Your task to perform on an android device: turn off location history Image 0: 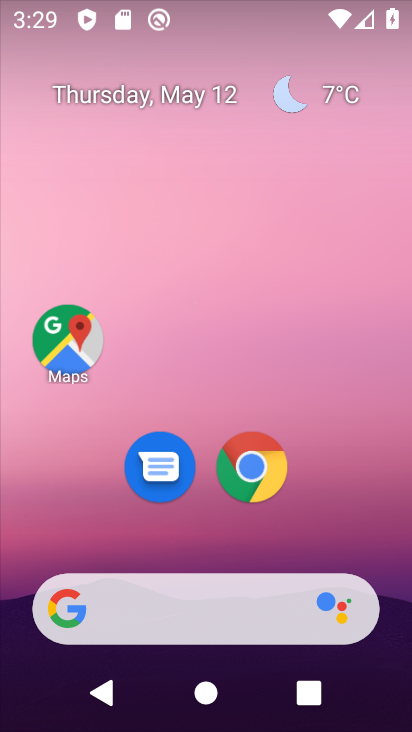
Step 0: drag from (144, 548) to (236, 143)
Your task to perform on an android device: turn off location history Image 1: 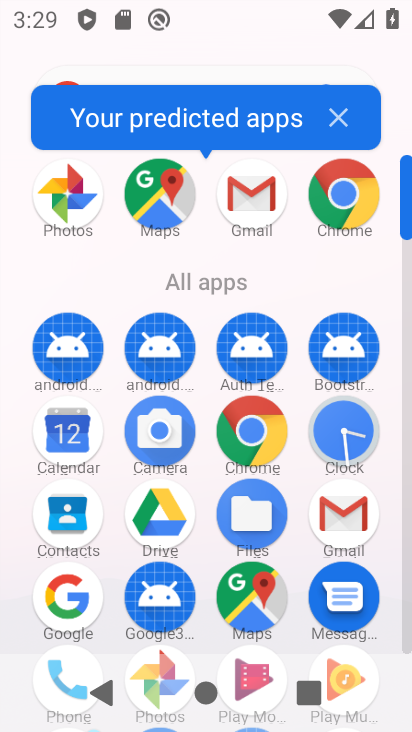
Step 1: drag from (186, 569) to (237, 357)
Your task to perform on an android device: turn off location history Image 2: 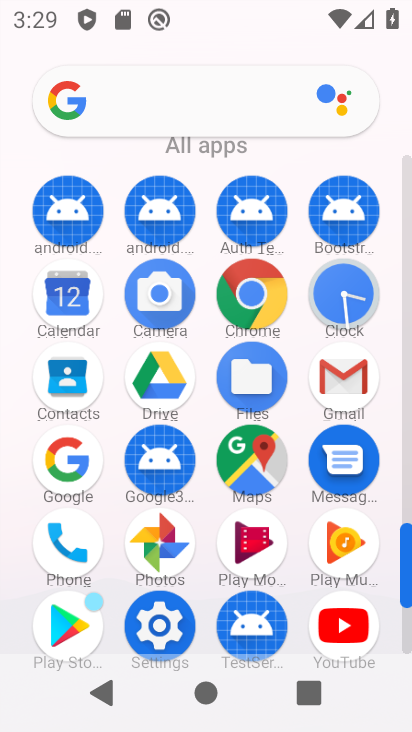
Step 2: click (177, 644)
Your task to perform on an android device: turn off location history Image 3: 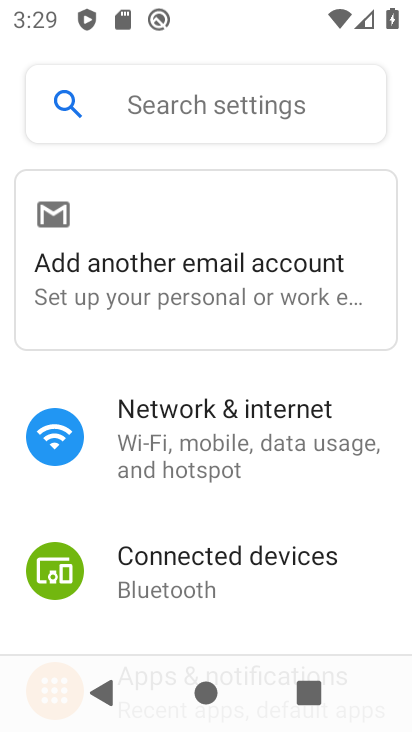
Step 3: drag from (204, 603) to (304, 103)
Your task to perform on an android device: turn off location history Image 4: 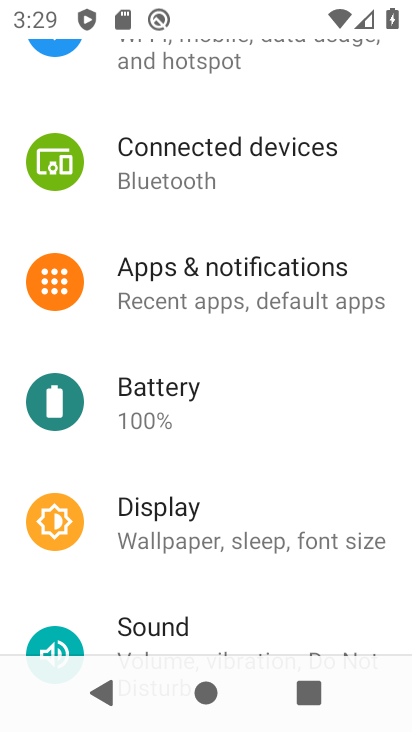
Step 4: drag from (174, 533) to (244, 210)
Your task to perform on an android device: turn off location history Image 5: 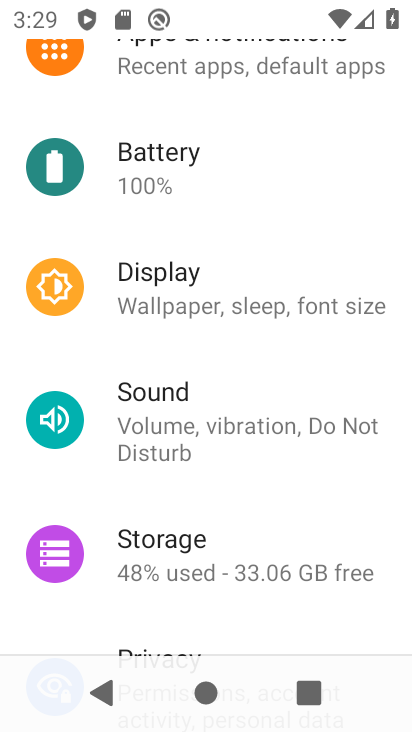
Step 5: drag from (174, 553) to (250, 206)
Your task to perform on an android device: turn off location history Image 6: 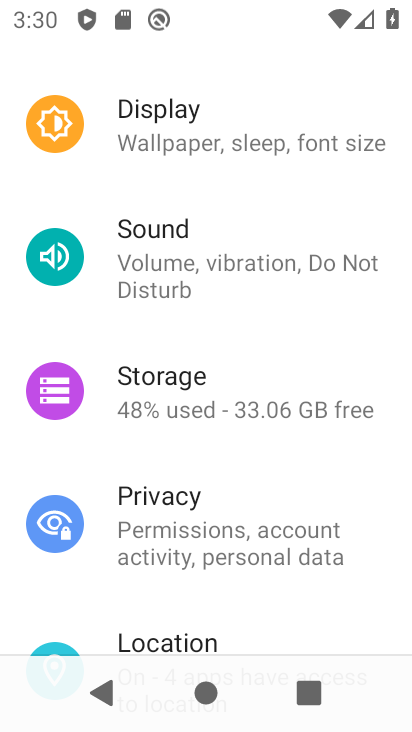
Step 6: drag from (159, 557) to (234, 247)
Your task to perform on an android device: turn off location history Image 7: 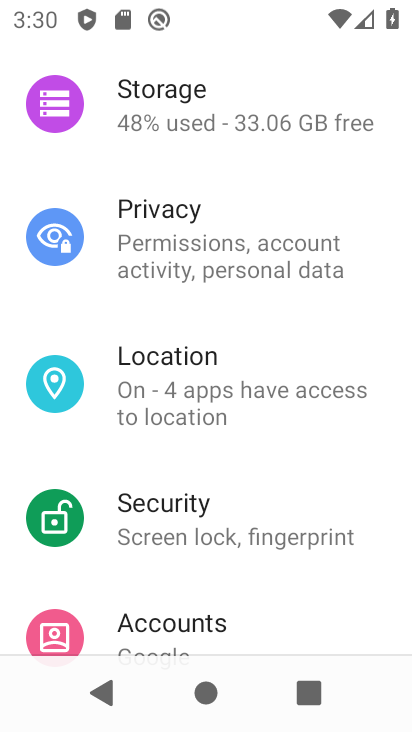
Step 7: click (212, 402)
Your task to perform on an android device: turn off location history Image 8: 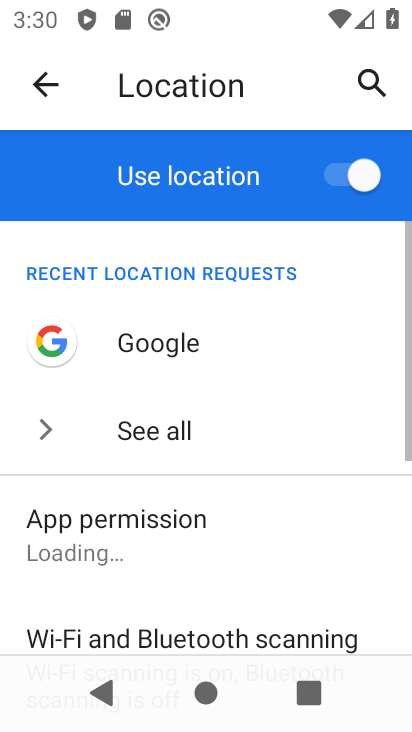
Step 8: drag from (164, 545) to (252, 184)
Your task to perform on an android device: turn off location history Image 9: 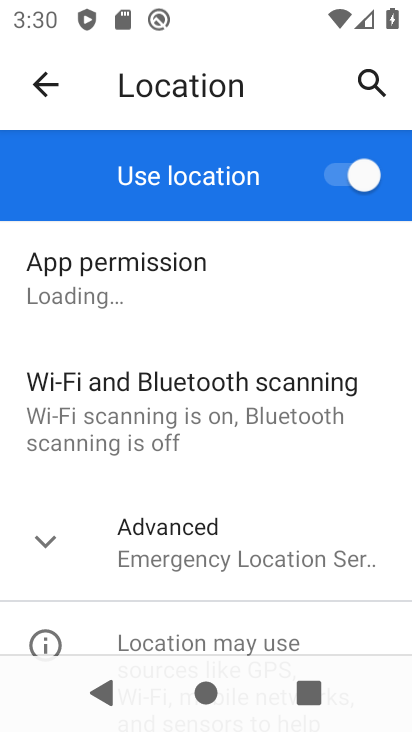
Step 9: click (202, 529)
Your task to perform on an android device: turn off location history Image 10: 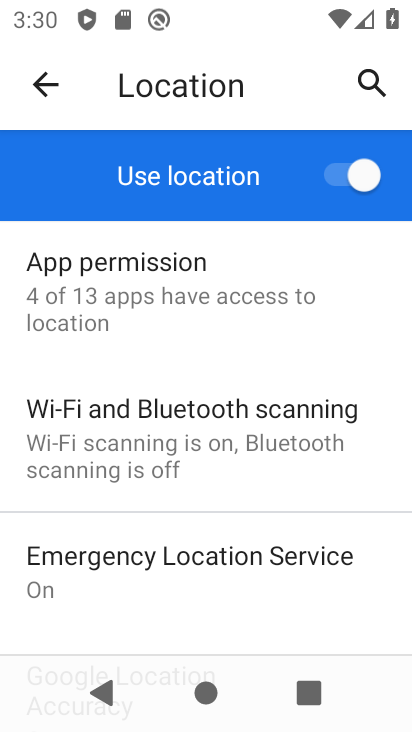
Step 10: drag from (173, 589) to (245, 243)
Your task to perform on an android device: turn off location history Image 11: 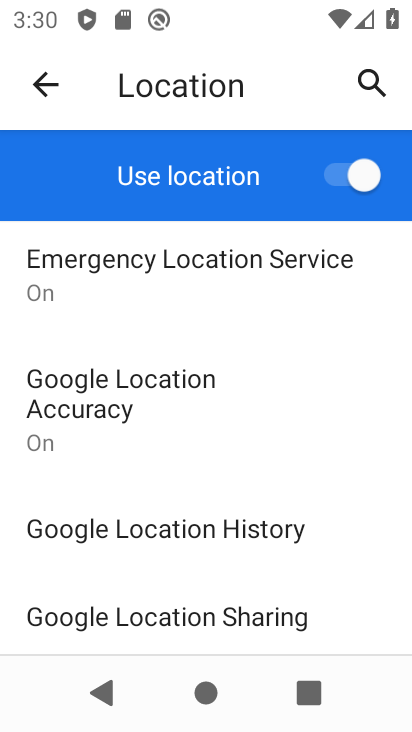
Step 11: click (194, 529)
Your task to perform on an android device: turn off location history Image 12: 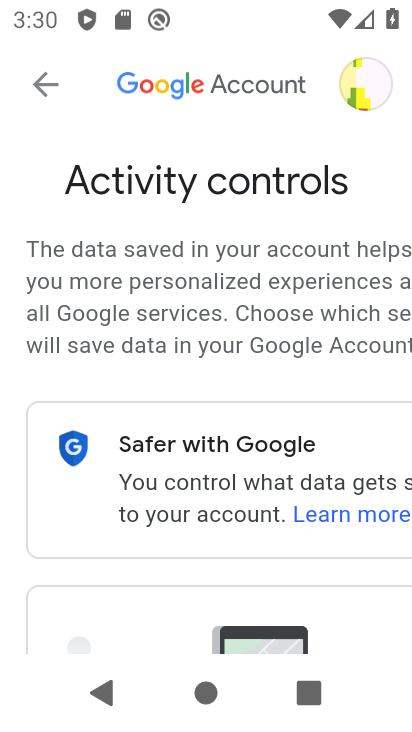
Step 12: drag from (253, 582) to (328, 123)
Your task to perform on an android device: turn off location history Image 13: 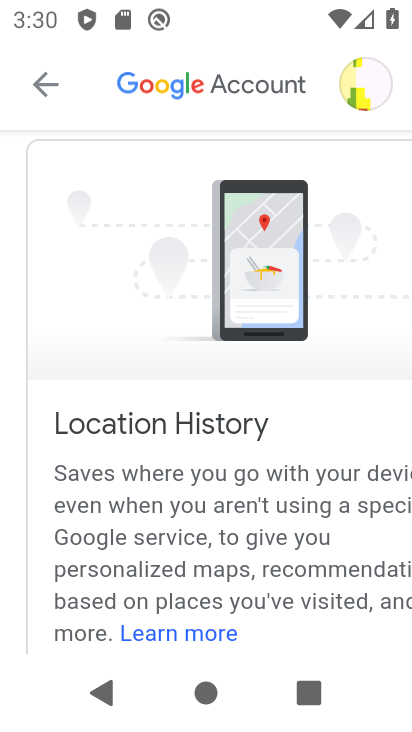
Step 13: drag from (193, 514) to (272, 77)
Your task to perform on an android device: turn off location history Image 14: 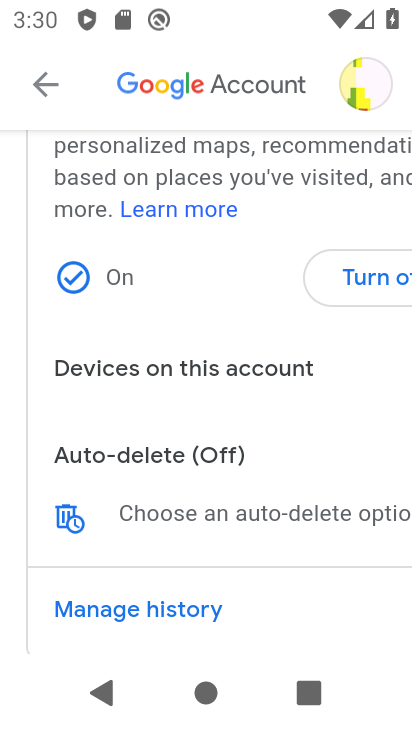
Step 14: click (356, 282)
Your task to perform on an android device: turn off location history Image 15: 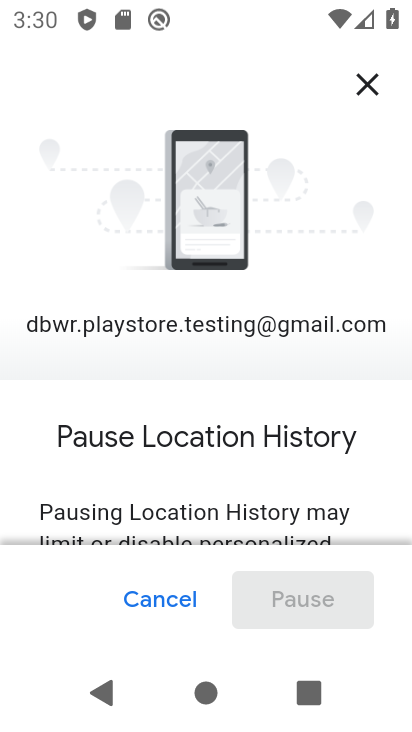
Step 15: drag from (254, 471) to (363, 111)
Your task to perform on an android device: turn off location history Image 16: 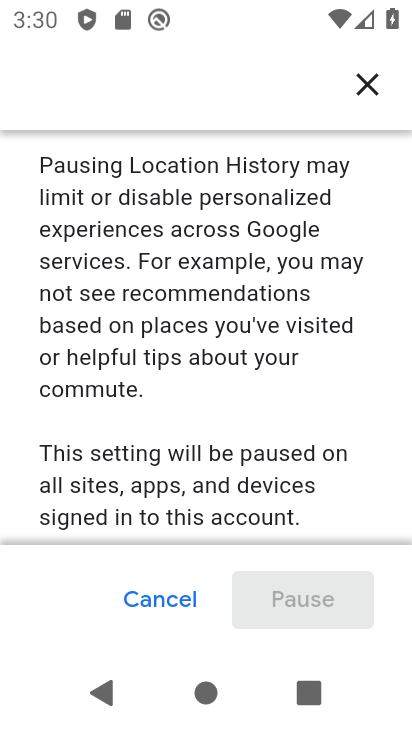
Step 16: drag from (242, 451) to (343, 66)
Your task to perform on an android device: turn off location history Image 17: 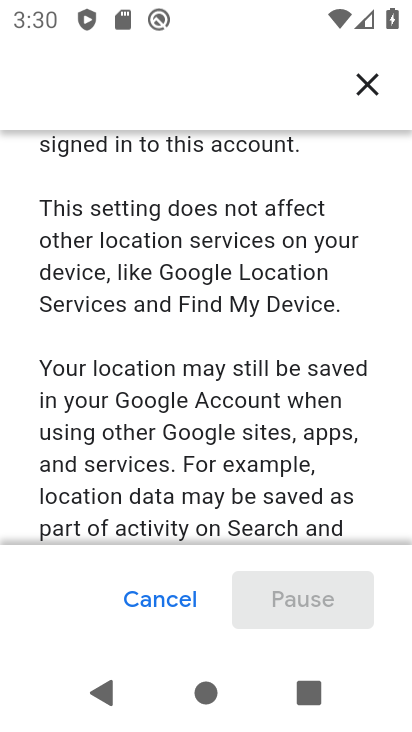
Step 17: drag from (231, 493) to (336, 85)
Your task to perform on an android device: turn off location history Image 18: 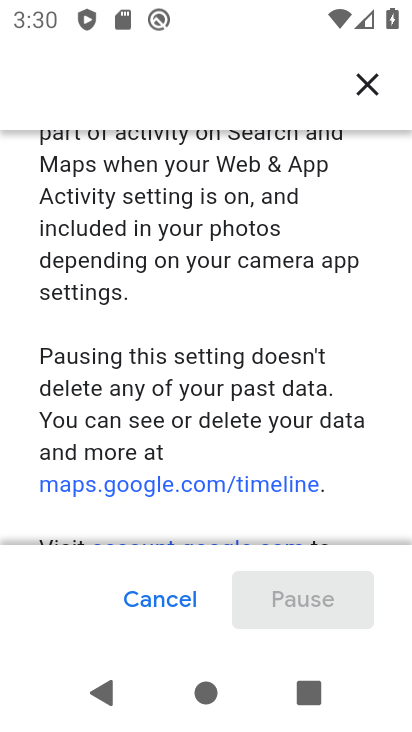
Step 18: drag from (199, 529) to (324, 141)
Your task to perform on an android device: turn off location history Image 19: 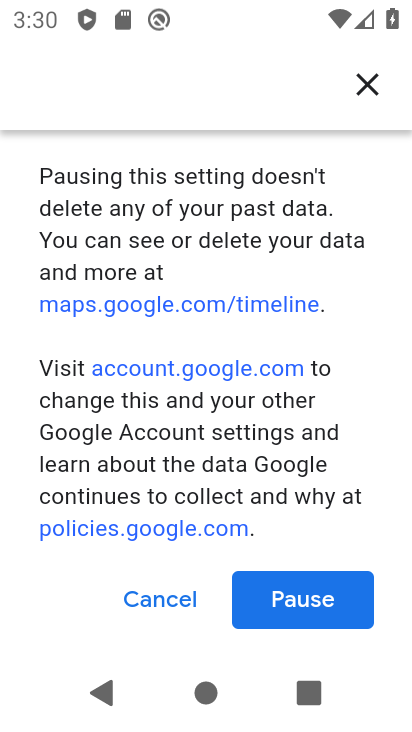
Step 19: click (301, 589)
Your task to perform on an android device: turn off location history Image 20: 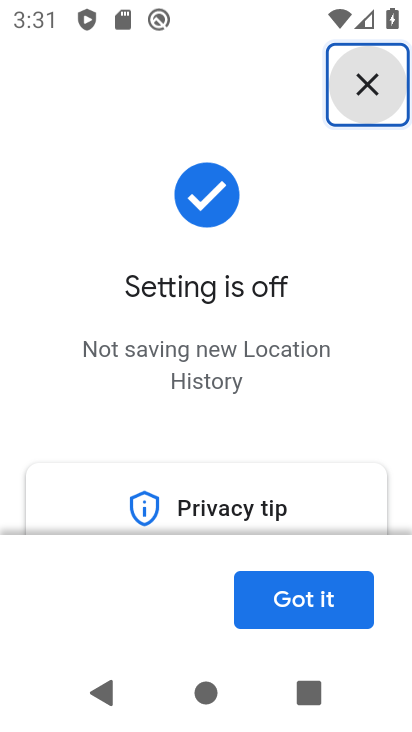
Step 20: click (335, 618)
Your task to perform on an android device: turn off location history Image 21: 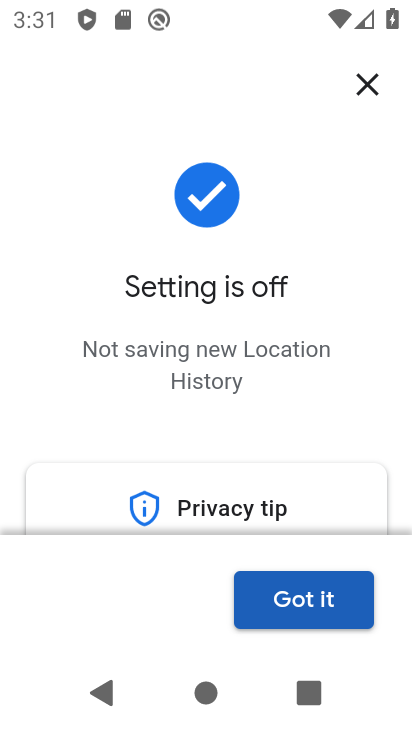
Step 21: click (332, 617)
Your task to perform on an android device: turn off location history Image 22: 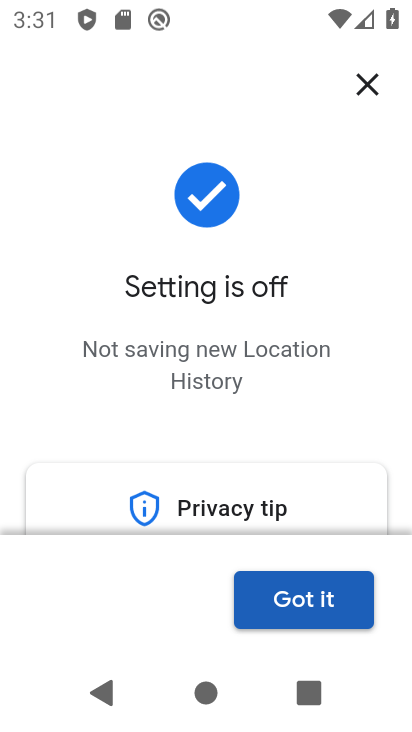
Step 22: click (324, 610)
Your task to perform on an android device: turn off location history Image 23: 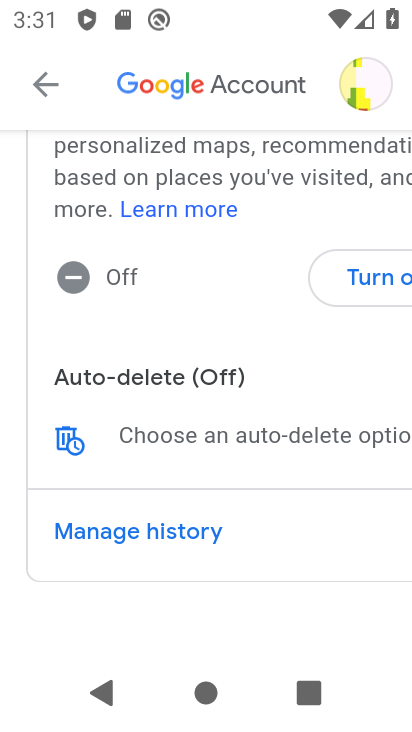
Step 23: task complete